Your task to perform on an android device: toggle wifi Image 0: 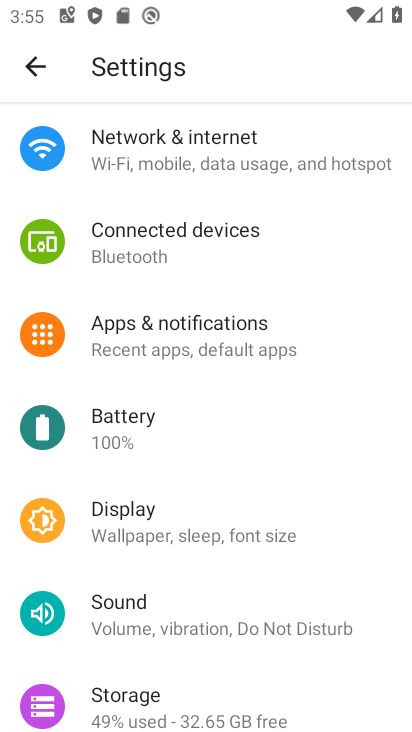
Step 0: click (322, 141)
Your task to perform on an android device: toggle wifi Image 1: 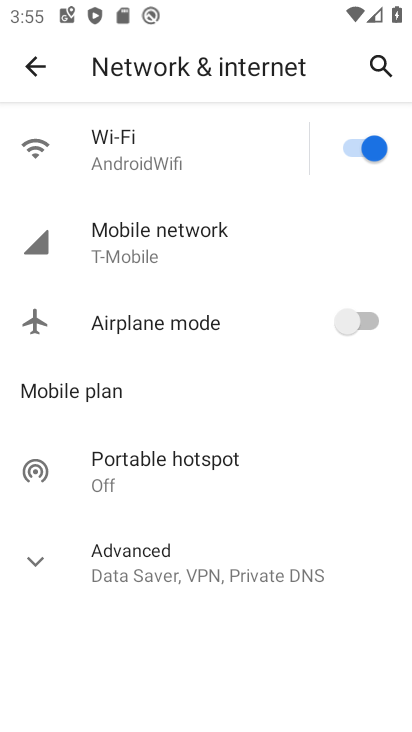
Step 1: click (352, 150)
Your task to perform on an android device: toggle wifi Image 2: 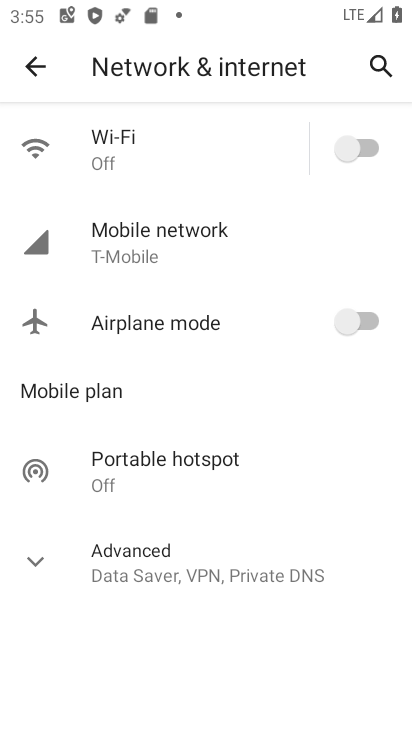
Step 2: task complete